Your task to perform on an android device: Go to Amazon Image 0: 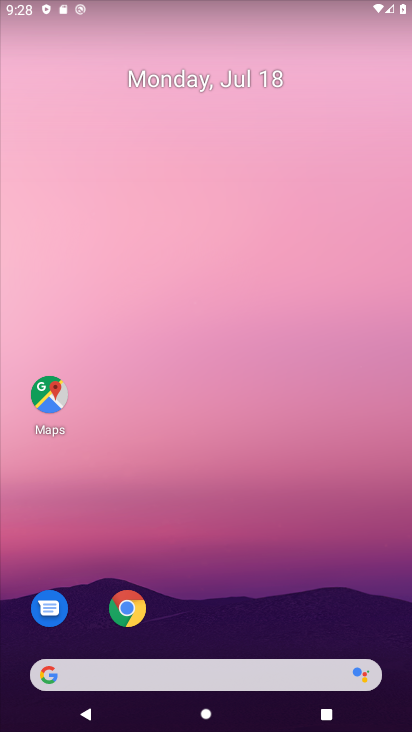
Step 0: drag from (281, 650) to (231, 188)
Your task to perform on an android device: Go to Amazon Image 1: 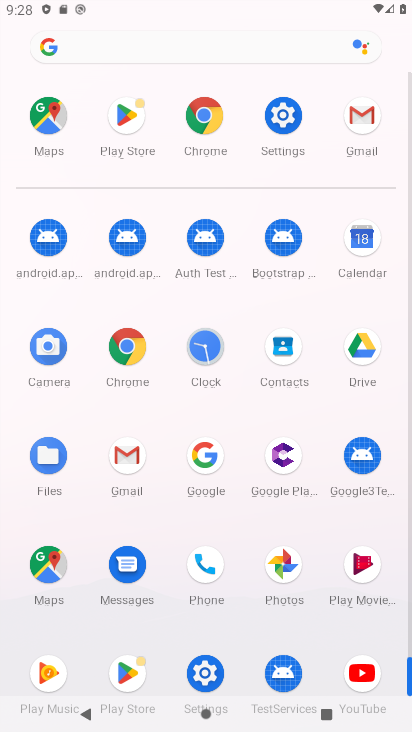
Step 1: click (210, 112)
Your task to perform on an android device: Go to Amazon Image 2: 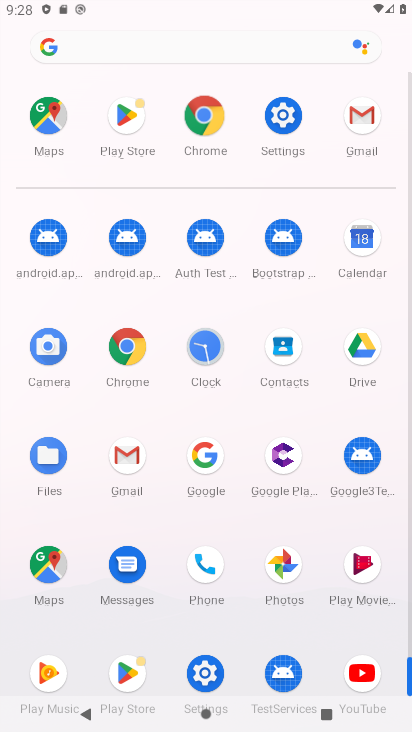
Step 2: click (221, 118)
Your task to perform on an android device: Go to Amazon Image 3: 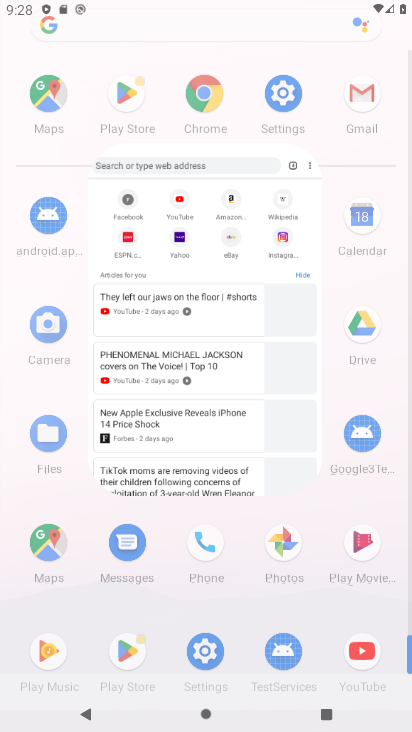
Step 3: click (220, 115)
Your task to perform on an android device: Go to Amazon Image 4: 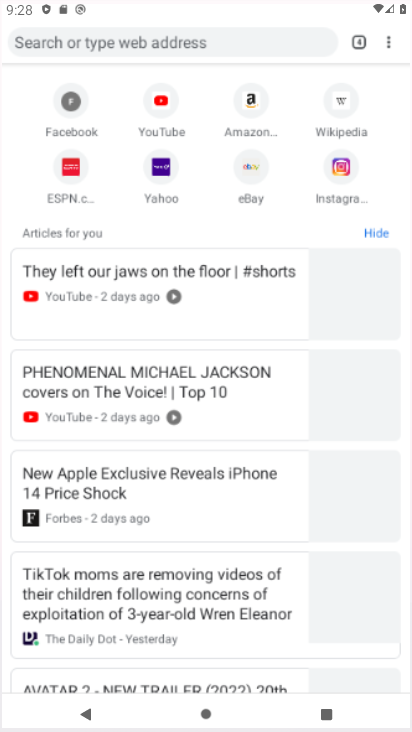
Step 4: click (220, 115)
Your task to perform on an android device: Go to Amazon Image 5: 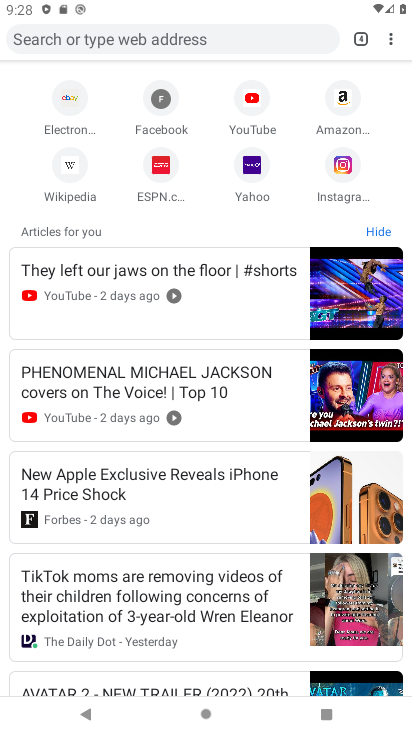
Step 5: click (339, 96)
Your task to perform on an android device: Go to Amazon Image 6: 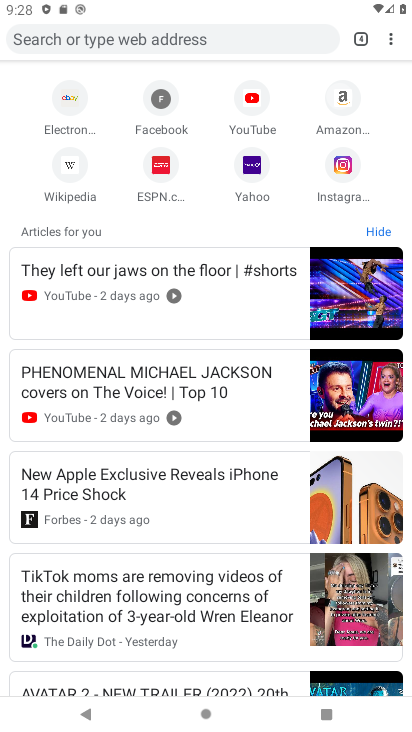
Step 6: click (340, 96)
Your task to perform on an android device: Go to Amazon Image 7: 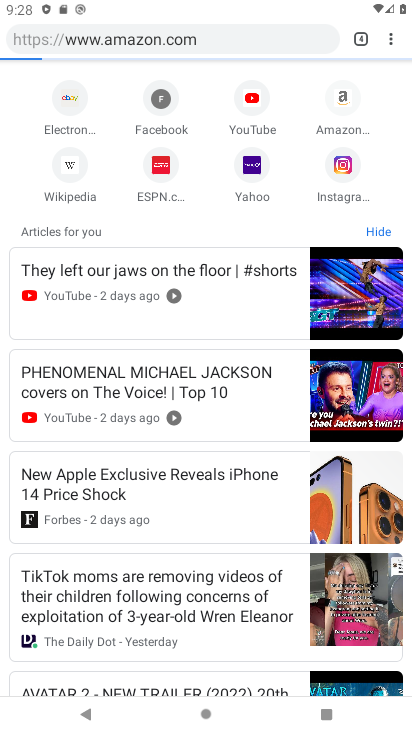
Step 7: click (340, 96)
Your task to perform on an android device: Go to Amazon Image 8: 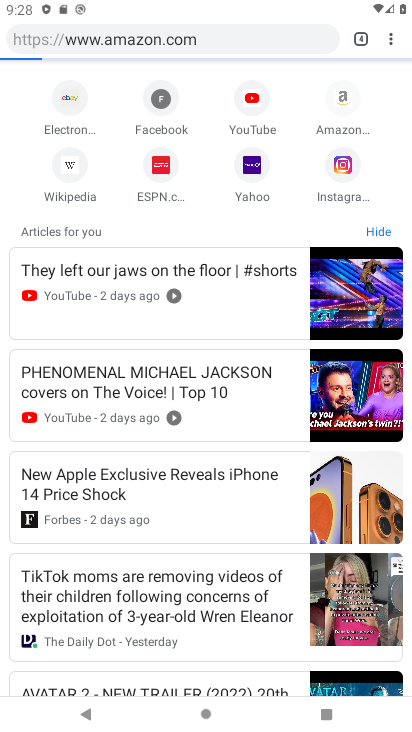
Step 8: click (341, 96)
Your task to perform on an android device: Go to Amazon Image 9: 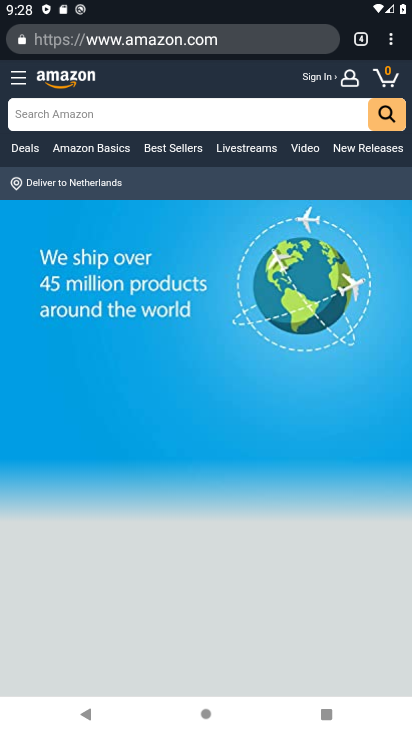
Step 9: task complete